Your task to perform on an android device: turn pop-ups off in chrome Image 0: 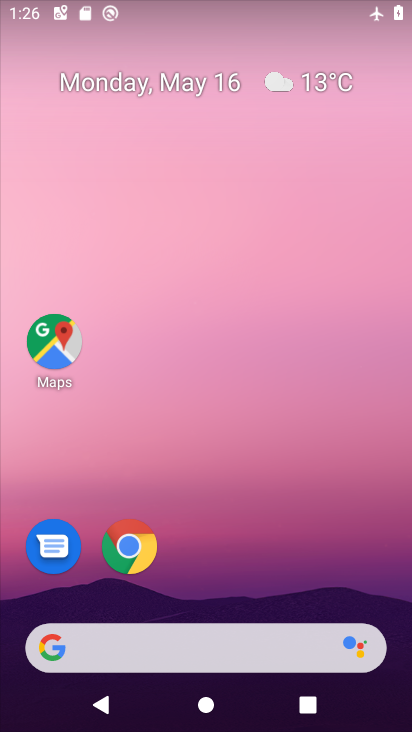
Step 0: click (132, 545)
Your task to perform on an android device: turn pop-ups off in chrome Image 1: 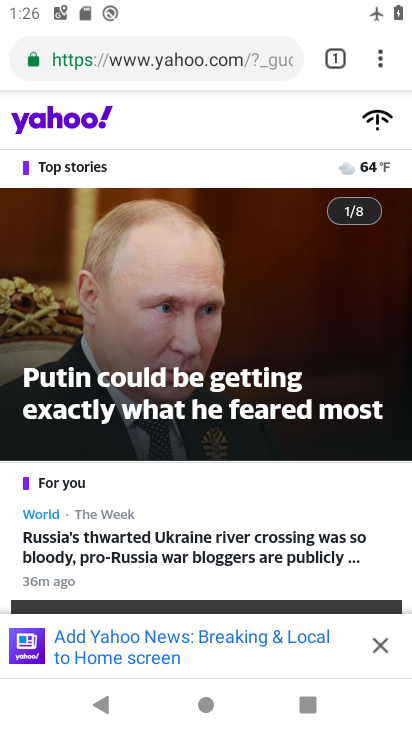
Step 1: click (379, 67)
Your task to perform on an android device: turn pop-ups off in chrome Image 2: 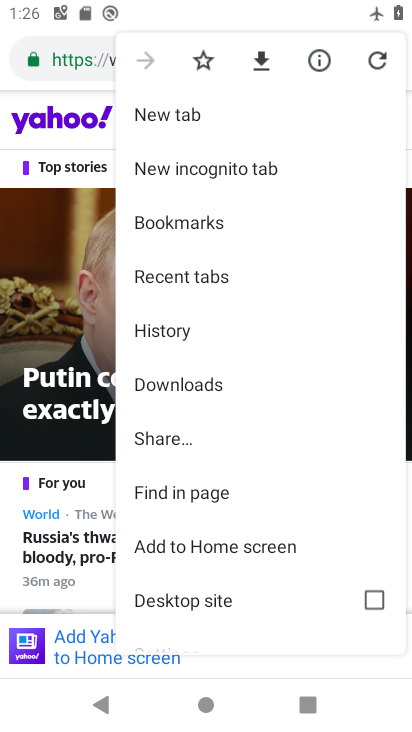
Step 2: drag from (198, 581) to (206, 156)
Your task to perform on an android device: turn pop-ups off in chrome Image 3: 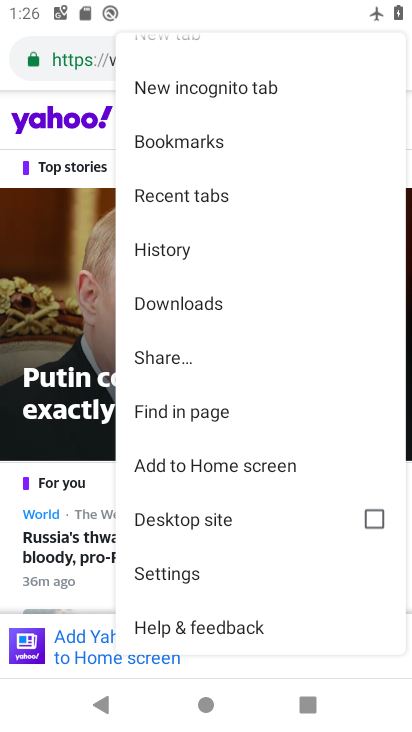
Step 3: click (155, 565)
Your task to perform on an android device: turn pop-ups off in chrome Image 4: 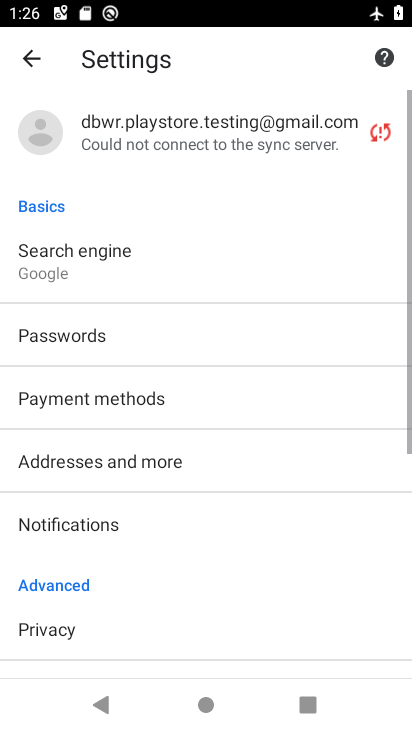
Step 4: drag from (162, 596) to (159, 230)
Your task to perform on an android device: turn pop-ups off in chrome Image 5: 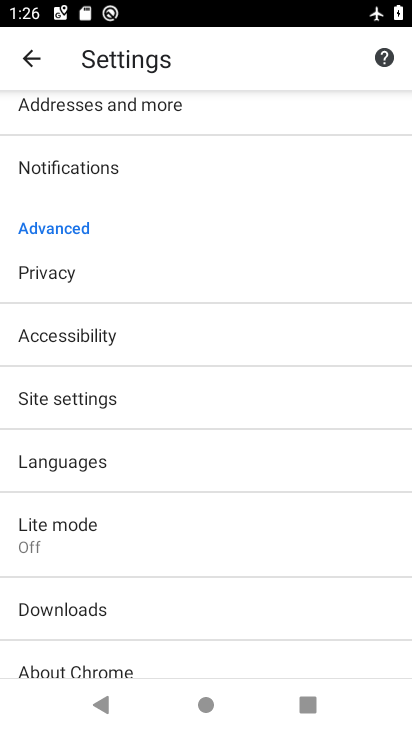
Step 5: click (96, 397)
Your task to perform on an android device: turn pop-ups off in chrome Image 6: 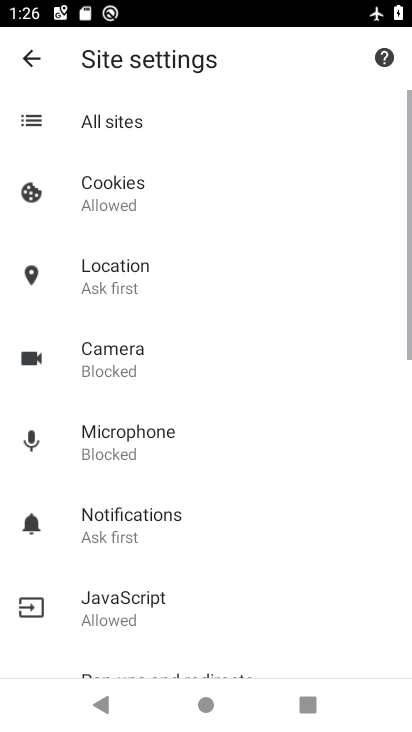
Step 6: drag from (164, 612) to (164, 276)
Your task to perform on an android device: turn pop-ups off in chrome Image 7: 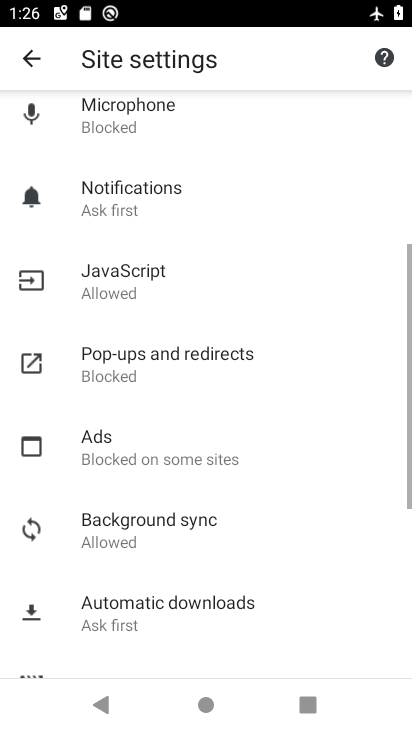
Step 7: click (134, 355)
Your task to perform on an android device: turn pop-ups off in chrome Image 8: 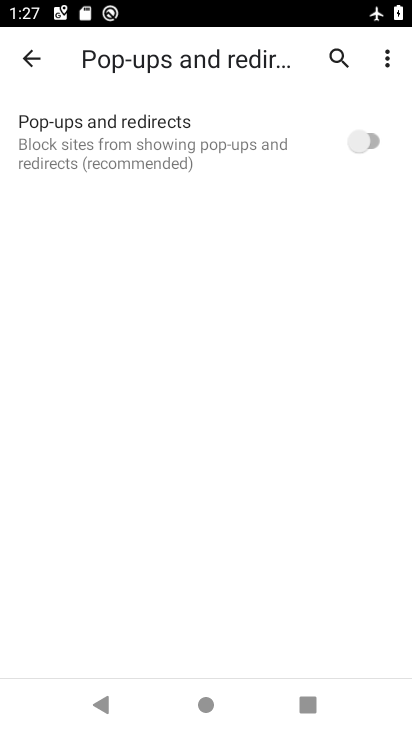
Step 8: task complete